Your task to perform on an android device: Go to Wikipedia Image 0: 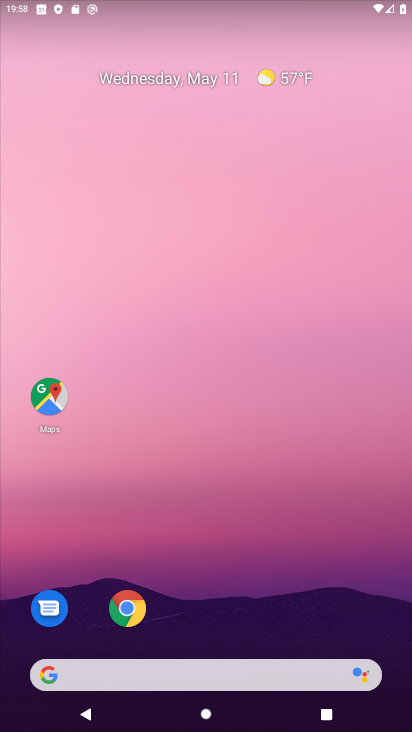
Step 0: click (132, 612)
Your task to perform on an android device: Go to Wikipedia Image 1: 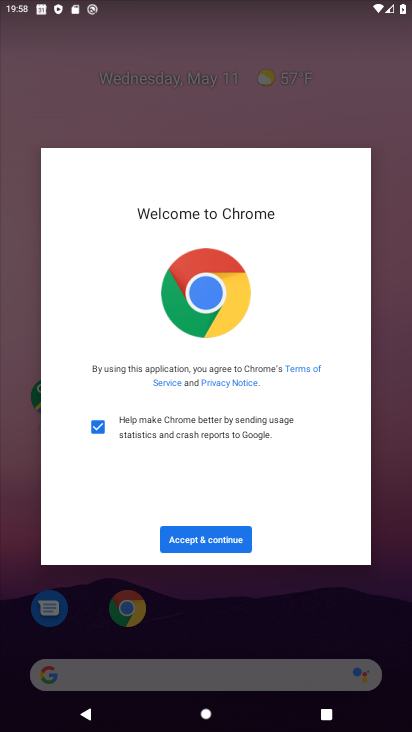
Step 1: click (226, 540)
Your task to perform on an android device: Go to Wikipedia Image 2: 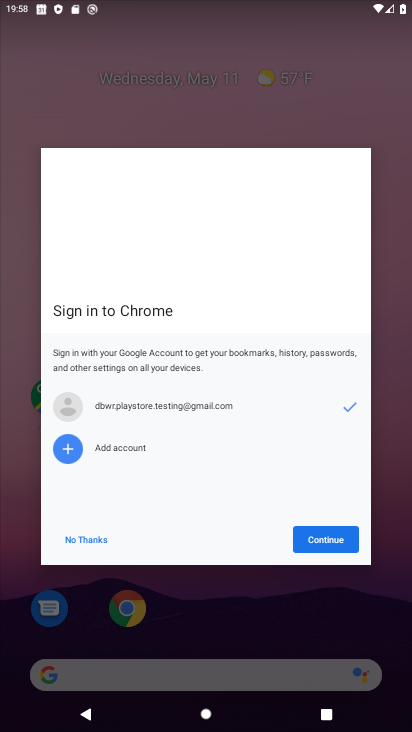
Step 2: click (339, 543)
Your task to perform on an android device: Go to Wikipedia Image 3: 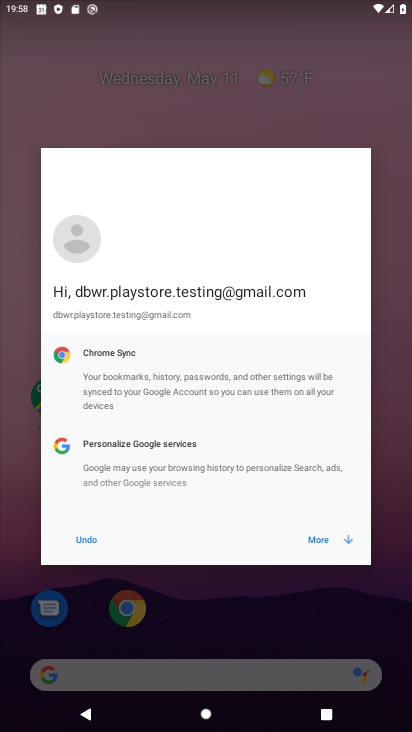
Step 3: click (338, 538)
Your task to perform on an android device: Go to Wikipedia Image 4: 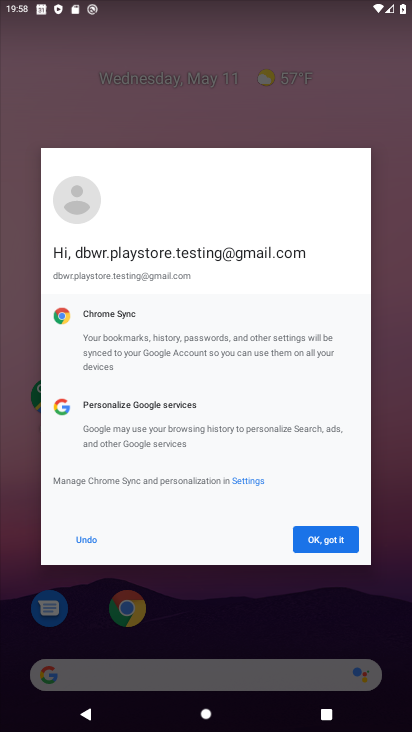
Step 4: click (338, 538)
Your task to perform on an android device: Go to Wikipedia Image 5: 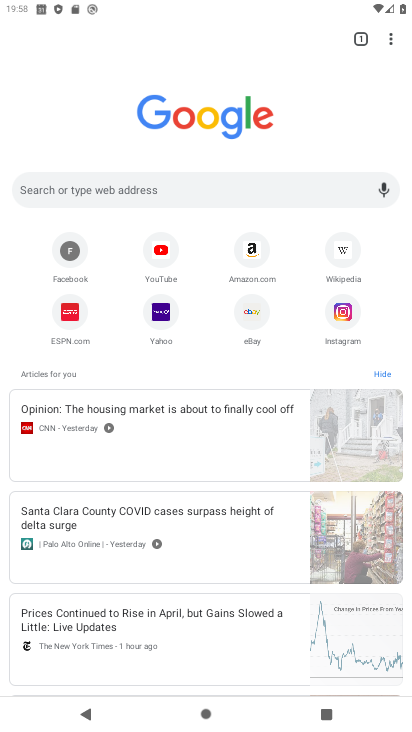
Step 5: click (69, 314)
Your task to perform on an android device: Go to Wikipedia Image 6: 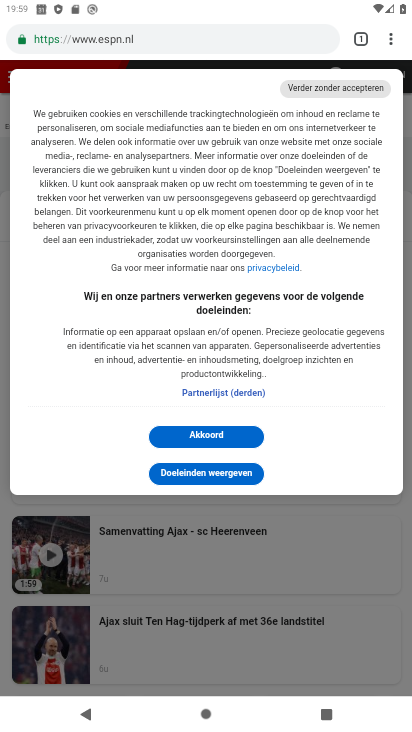
Step 6: task complete